Your task to perform on an android device: Go to calendar. Show me events next week Image 0: 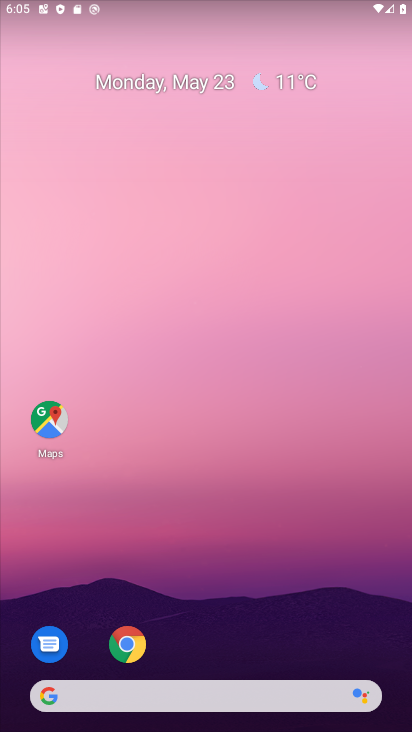
Step 0: drag from (207, 653) to (168, 250)
Your task to perform on an android device: Go to calendar. Show me events next week Image 1: 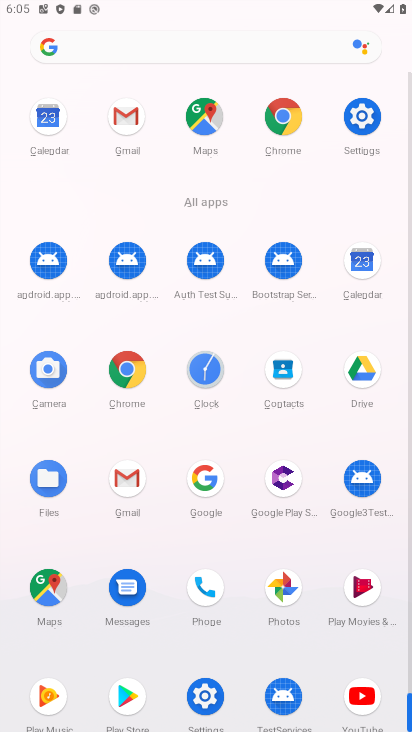
Step 1: click (361, 291)
Your task to perform on an android device: Go to calendar. Show me events next week Image 2: 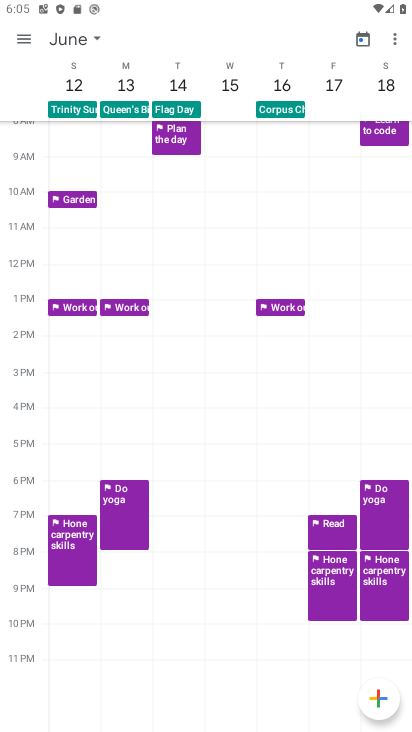
Step 2: click (70, 51)
Your task to perform on an android device: Go to calendar. Show me events next week Image 3: 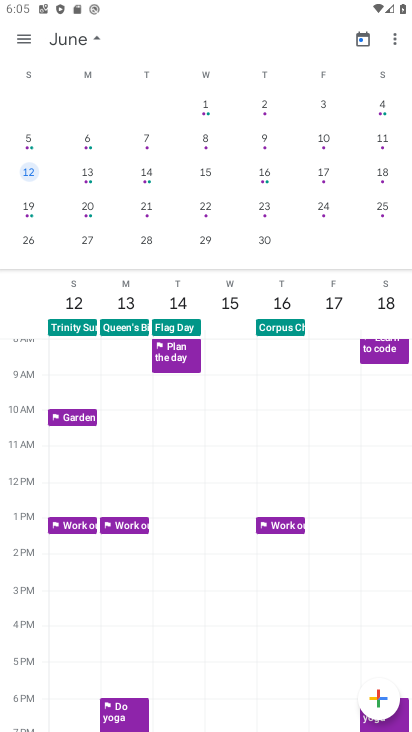
Step 3: drag from (63, 181) to (396, 177)
Your task to perform on an android device: Go to calendar. Show me events next week Image 4: 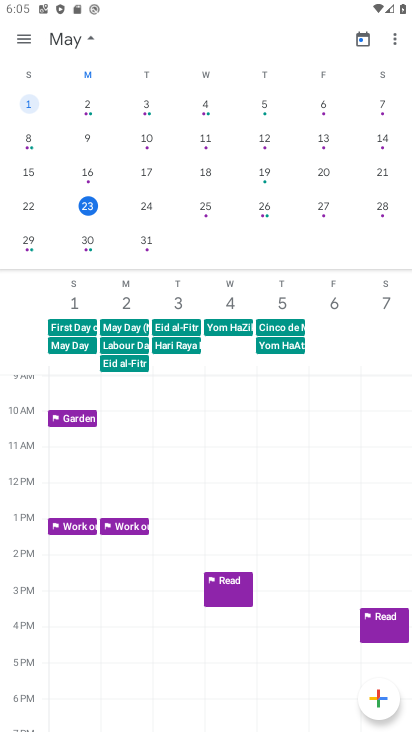
Step 4: click (28, 238)
Your task to perform on an android device: Go to calendar. Show me events next week Image 5: 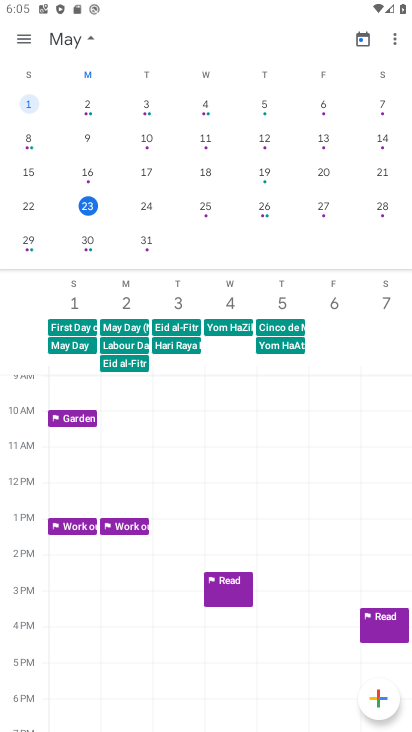
Step 5: click (28, 238)
Your task to perform on an android device: Go to calendar. Show me events next week Image 6: 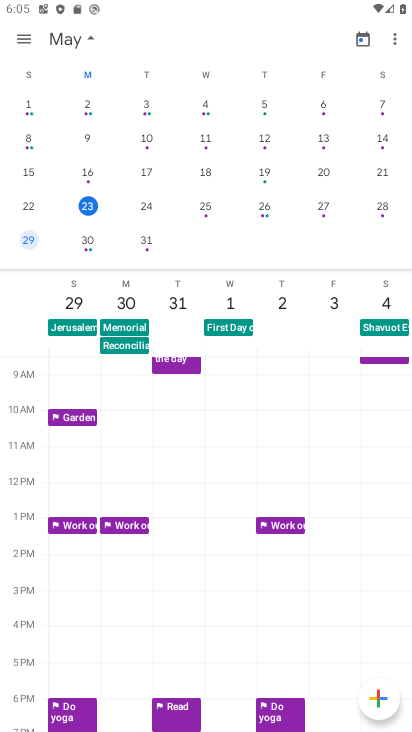
Step 6: task complete